Your task to perform on an android device: clear all cookies in the chrome app Image 0: 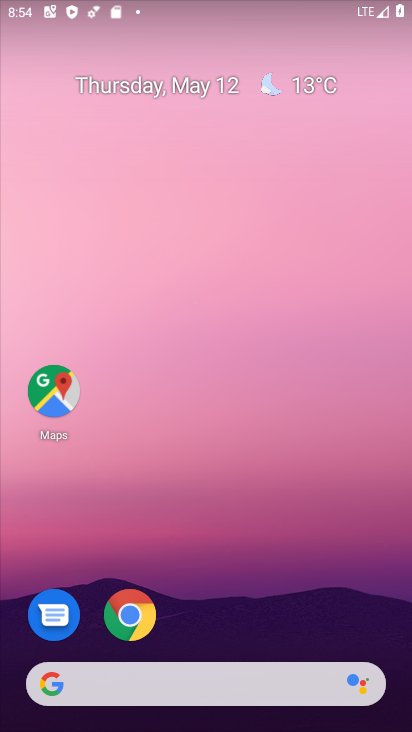
Step 0: click (150, 624)
Your task to perform on an android device: clear all cookies in the chrome app Image 1: 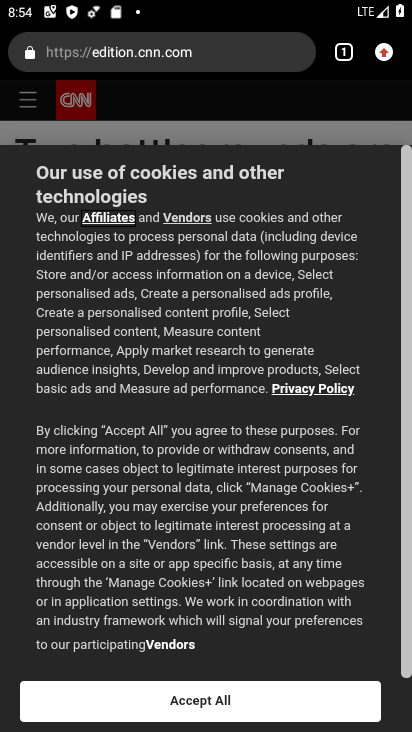
Step 1: click (377, 50)
Your task to perform on an android device: clear all cookies in the chrome app Image 2: 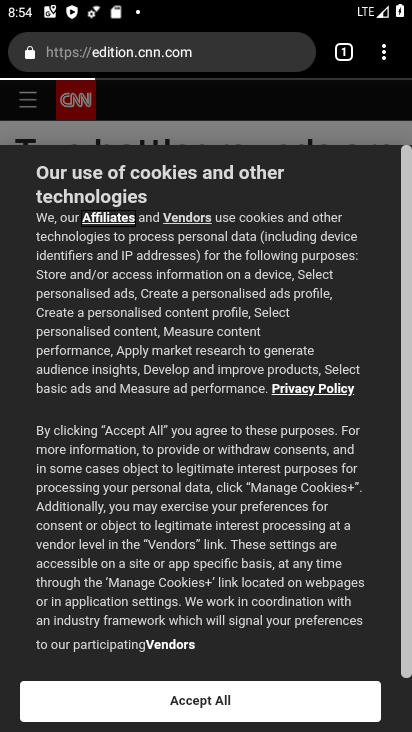
Step 2: drag from (379, 52) to (211, 636)
Your task to perform on an android device: clear all cookies in the chrome app Image 3: 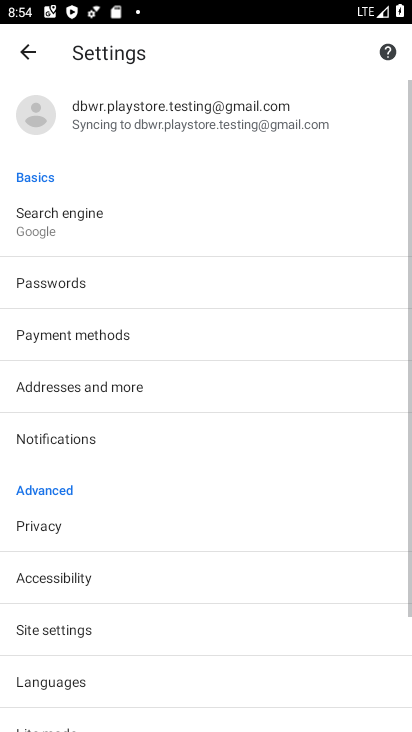
Step 3: click (34, 534)
Your task to perform on an android device: clear all cookies in the chrome app Image 4: 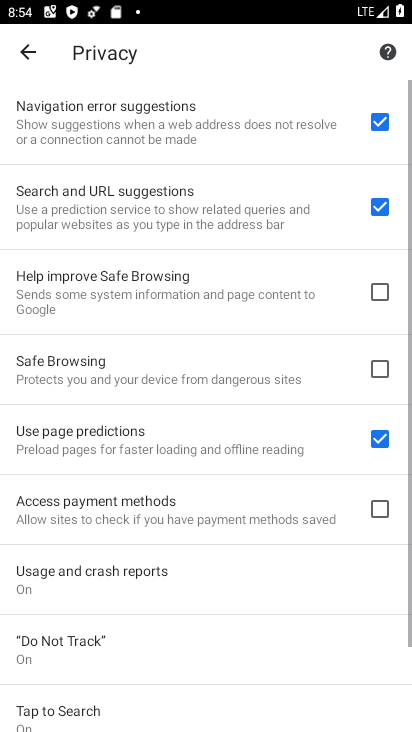
Step 4: drag from (113, 608) to (49, 33)
Your task to perform on an android device: clear all cookies in the chrome app Image 5: 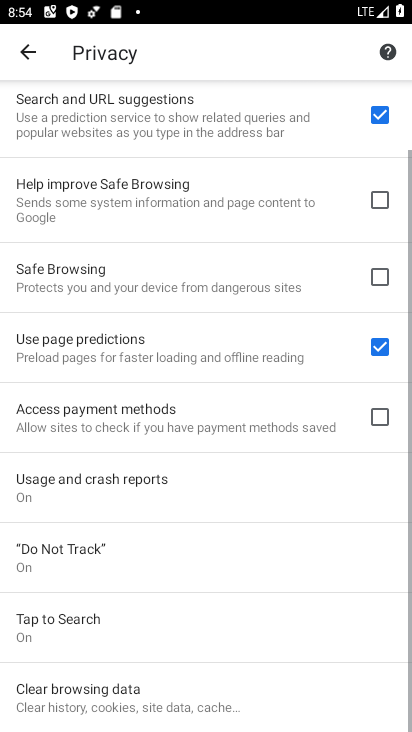
Step 5: click (93, 690)
Your task to perform on an android device: clear all cookies in the chrome app Image 6: 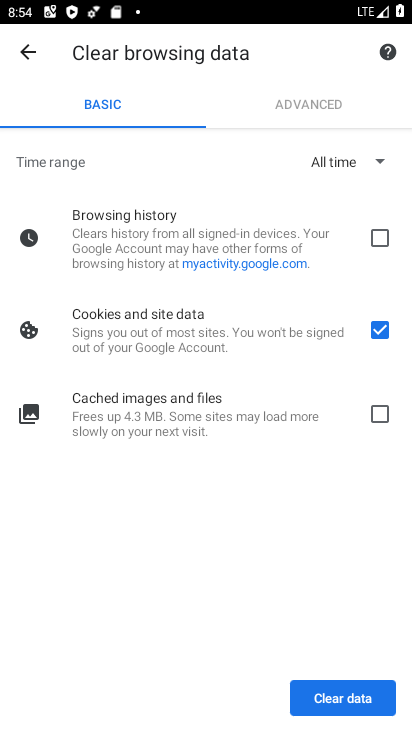
Step 6: click (336, 406)
Your task to perform on an android device: clear all cookies in the chrome app Image 7: 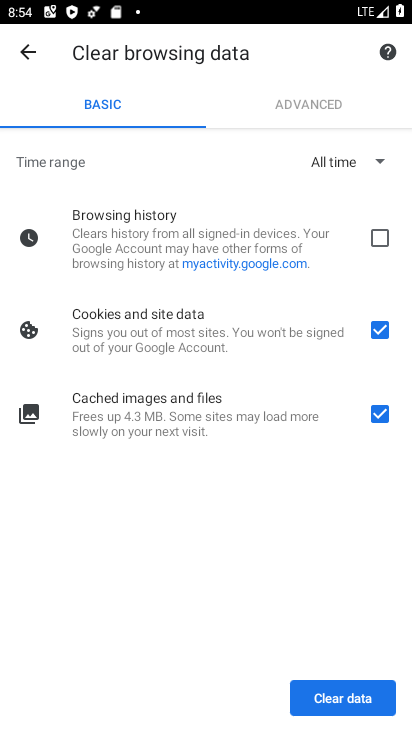
Step 7: click (381, 217)
Your task to perform on an android device: clear all cookies in the chrome app Image 8: 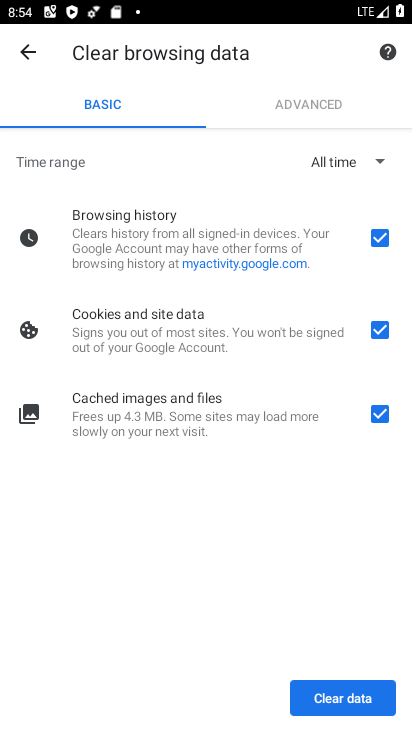
Step 8: click (313, 716)
Your task to perform on an android device: clear all cookies in the chrome app Image 9: 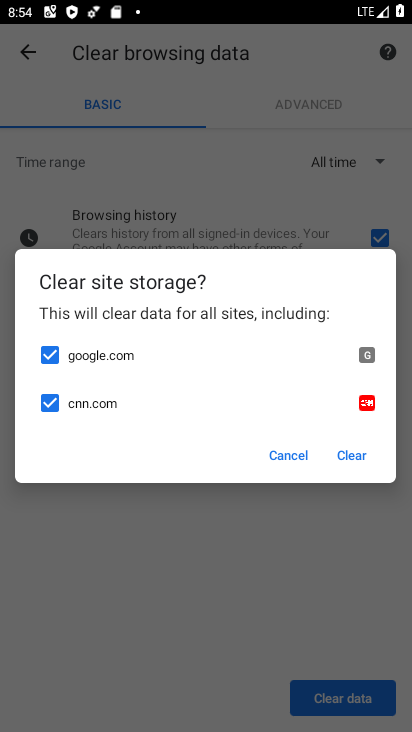
Step 9: click (322, 697)
Your task to perform on an android device: clear all cookies in the chrome app Image 10: 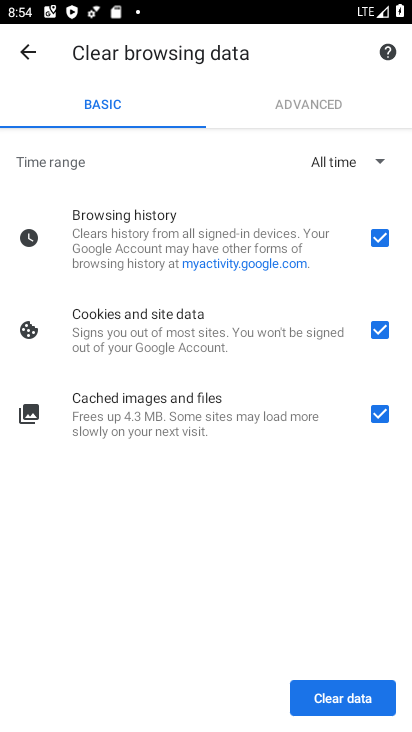
Step 10: click (382, 692)
Your task to perform on an android device: clear all cookies in the chrome app Image 11: 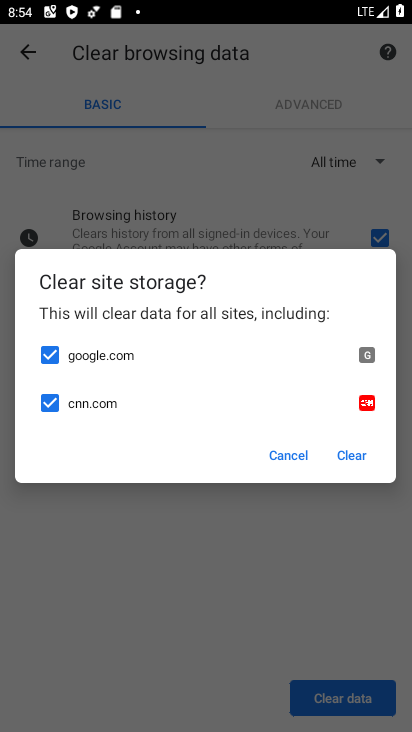
Step 11: click (357, 451)
Your task to perform on an android device: clear all cookies in the chrome app Image 12: 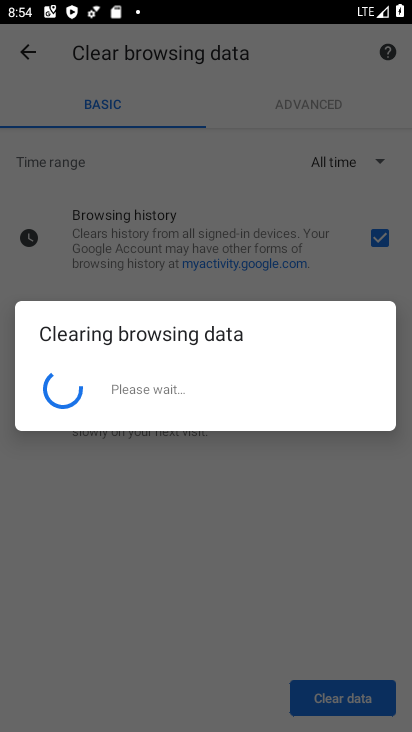
Step 12: task complete